Your task to perform on an android device: turn on bluetooth scan Image 0: 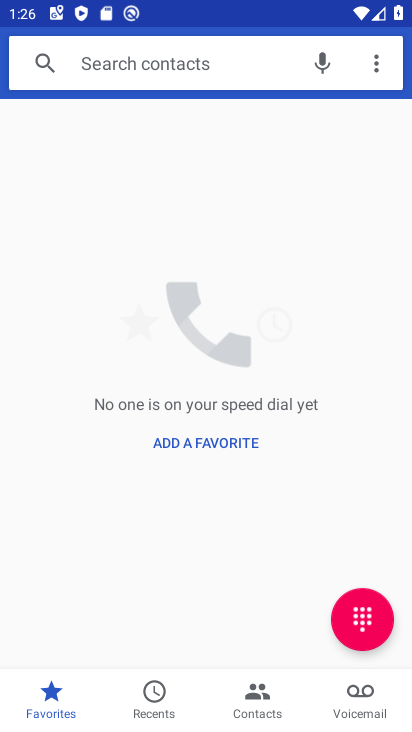
Step 0: press back button
Your task to perform on an android device: turn on bluetooth scan Image 1: 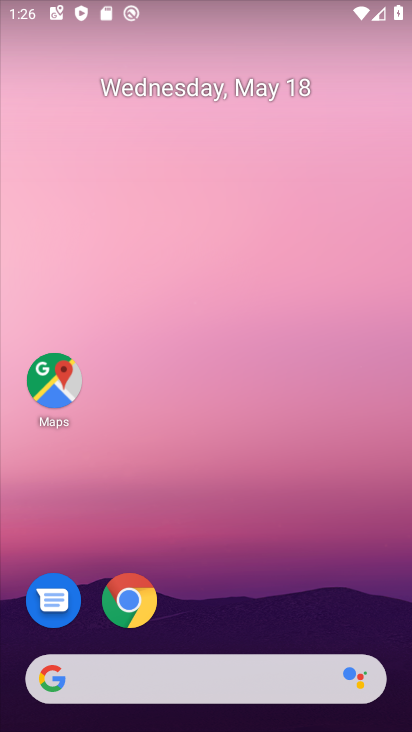
Step 1: drag from (267, 601) to (246, 47)
Your task to perform on an android device: turn on bluetooth scan Image 2: 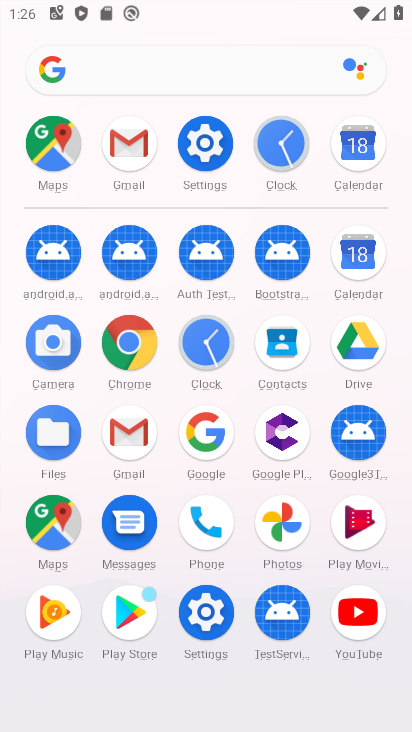
Step 2: click (199, 139)
Your task to perform on an android device: turn on bluetooth scan Image 3: 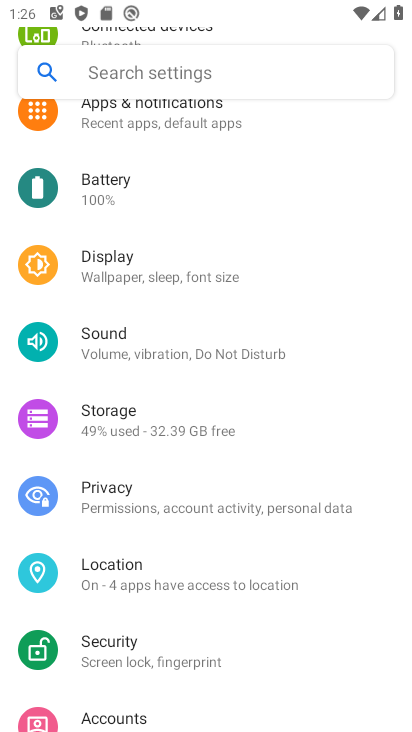
Step 3: click (157, 583)
Your task to perform on an android device: turn on bluetooth scan Image 4: 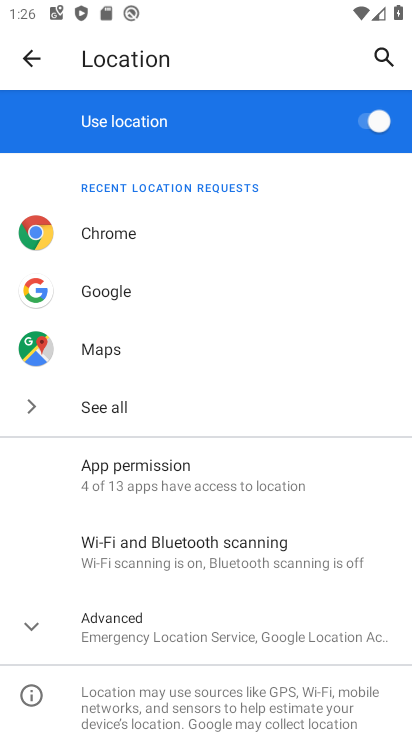
Step 4: click (168, 548)
Your task to perform on an android device: turn on bluetooth scan Image 5: 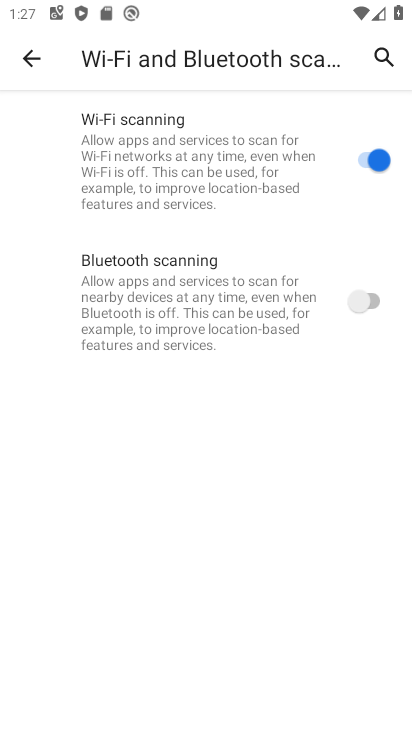
Step 5: click (351, 299)
Your task to perform on an android device: turn on bluetooth scan Image 6: 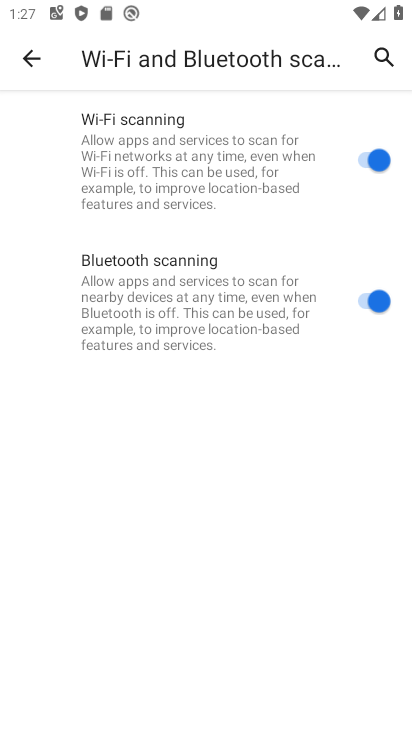
Step 6: task complete